Your task to perform on an android device: Go to display settings Image 0: 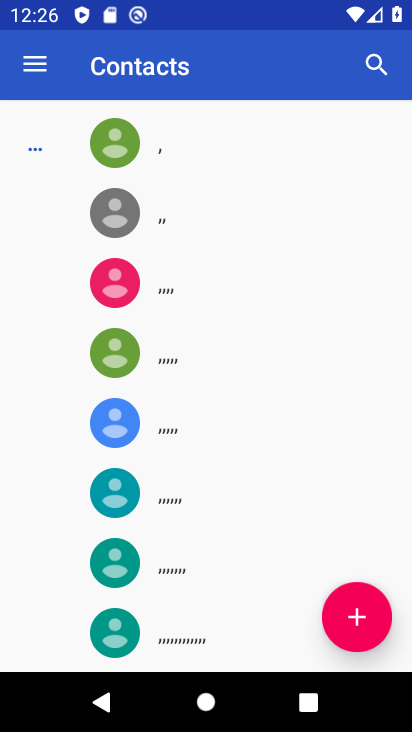
Step 0: press home button
Your task to perform on an android device: Go to display settings Image 1: 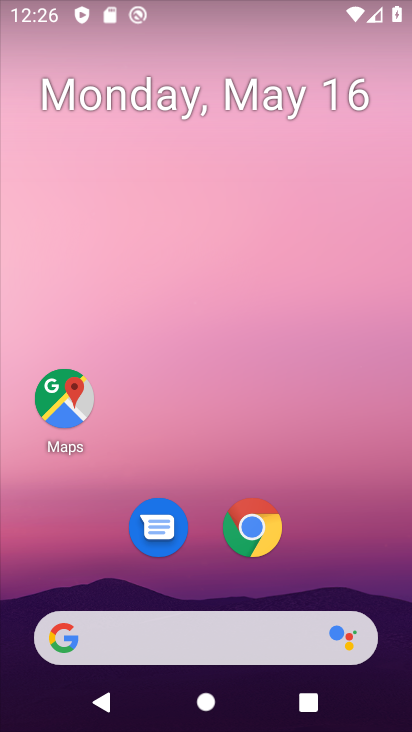
Step 1: drag from (211, 616) to (326, 130)
Your task to perform on an android device: Go to display settings Image 2: 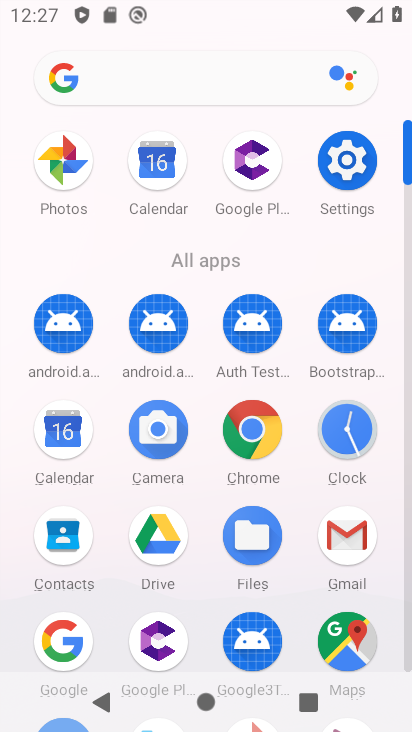
Step 2: click (340, 163)
Your task to perform on an android device: Go to display settings Image 3: 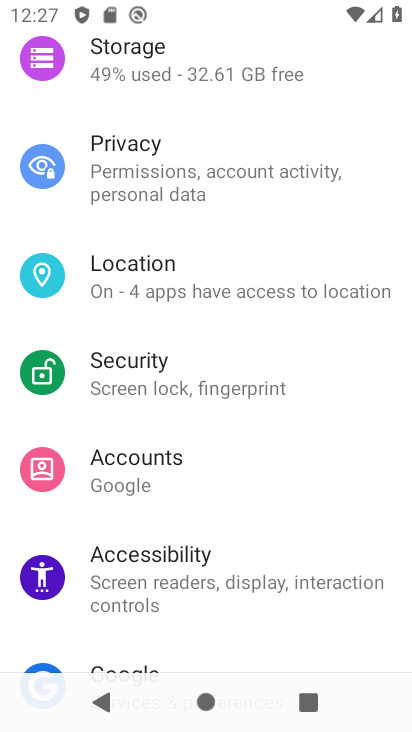
Step 3: drag from (324, 135) to (234, 601)
Your task to perform on an android device: Go to display settings Image 4: 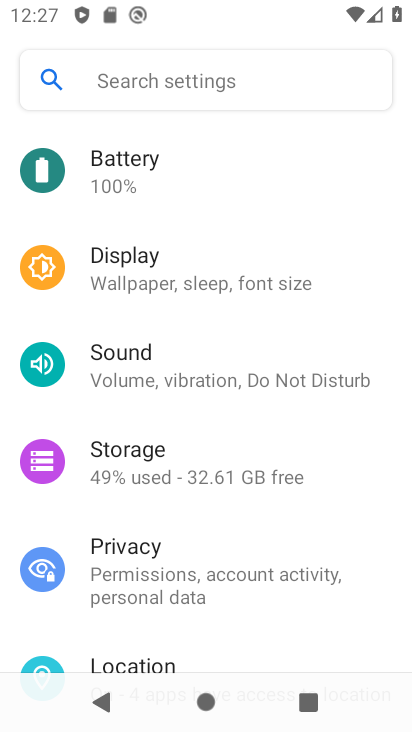
Step 4: click (145, 271)
Your task to perform on an android device: Go to display settings Image 5: 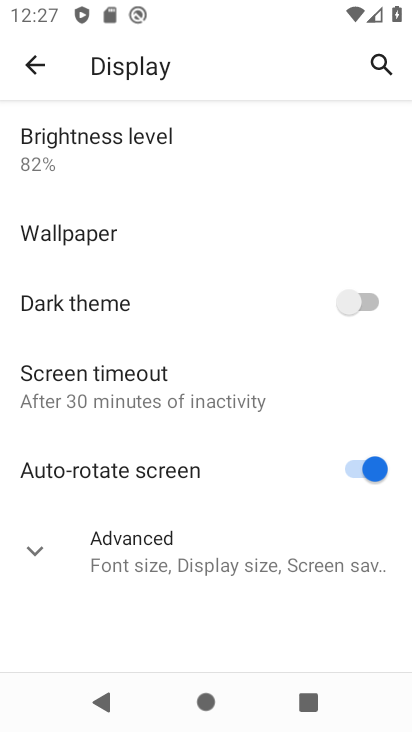
Step 5: task complete